Your task to perform on an android device: Go to CNN.com Image 0: 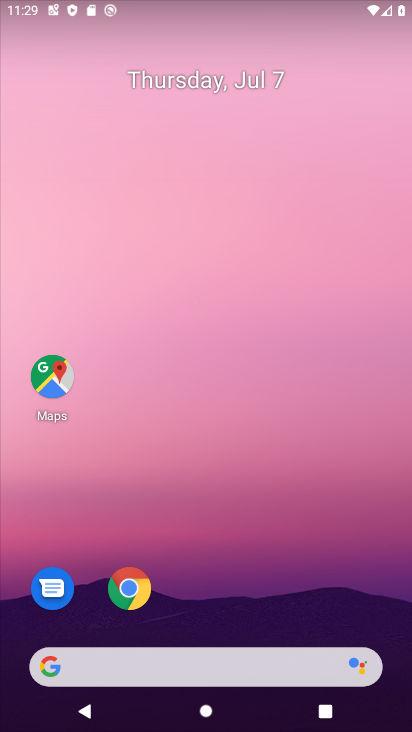
Step 0: drag from (245, 616) to (239, 136)
Your task to perform on an android device: Go to CNN.com Image 1: 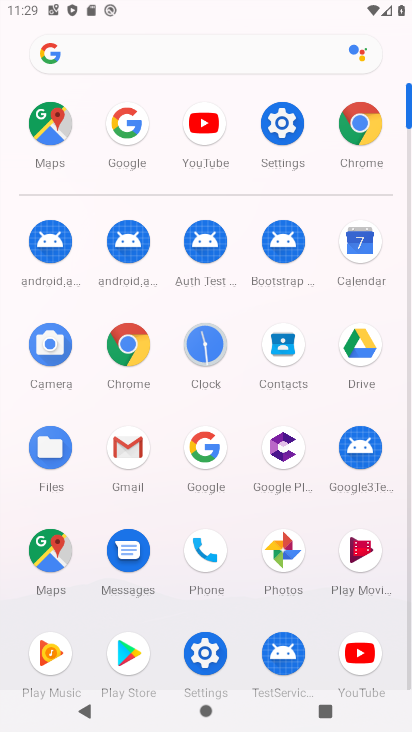
Step 1: click (212, 442)
Your task to perform on an android device: Go to CNN.com Image 2: 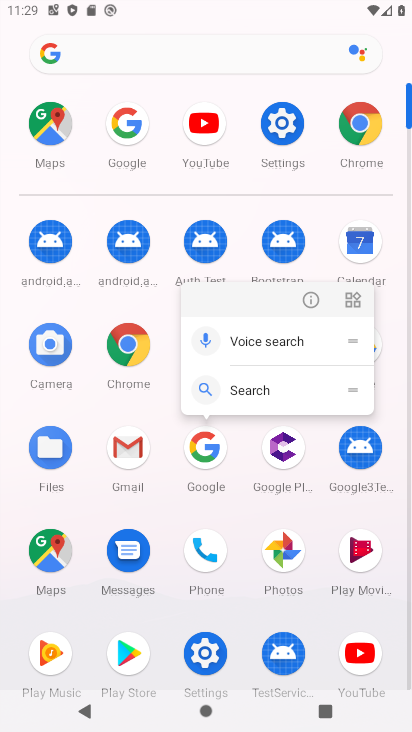
Step 2: click (212, 442)
Your task to perform on an android device: Go to CNN.com Image 3: 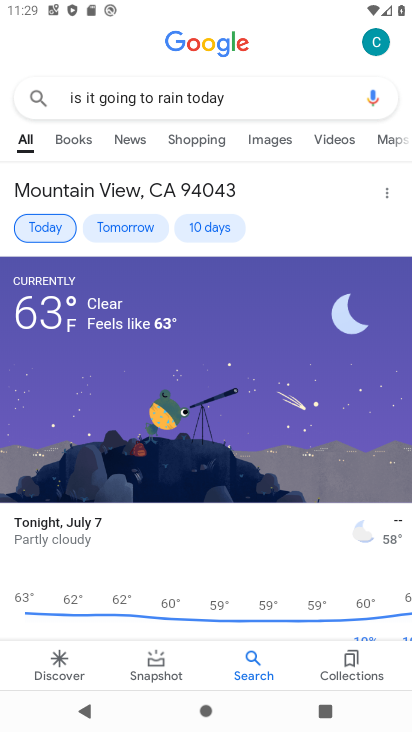
Step 3: click (273, 92)
Your task to perform on an android device: Go to CNN.com Image 4: 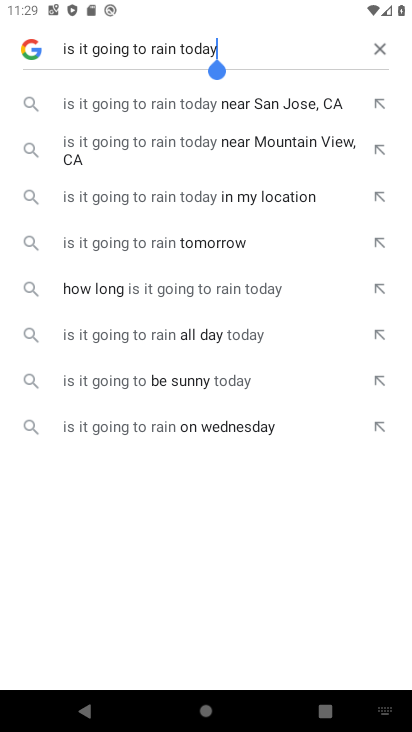
Step 4: click (372, 45)
Your task to perform on an android device: Go to CNN.com Image 5: 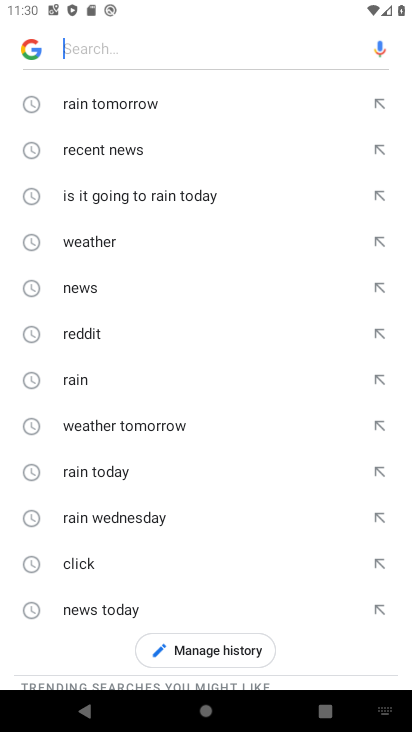
Step 5: type "cnn.com"
Your task to perform on an android device: Go to CNN.com Image 6: 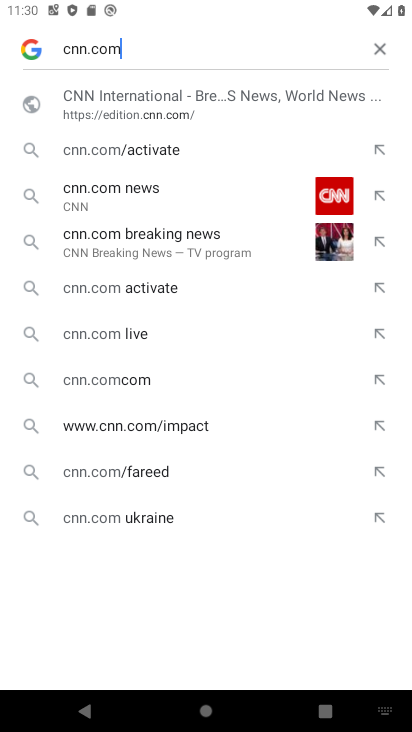
Step 6: click (157, 101)
Your task to perform on an android device: Go to CNN.com Image 7: 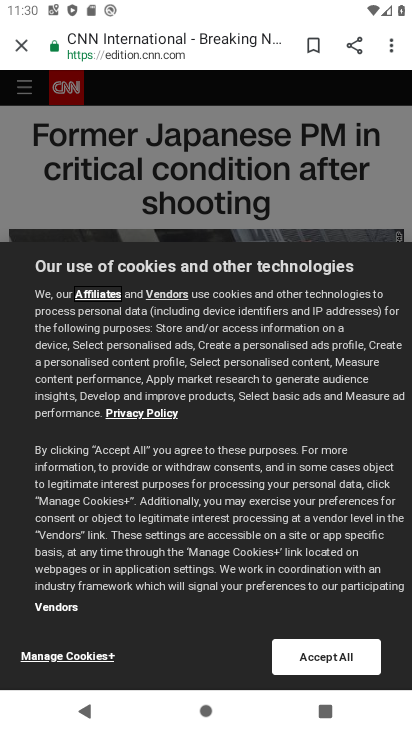
Step 7: task complete